Your task to perform on an android device: add a contact in the contacts app Image 0: 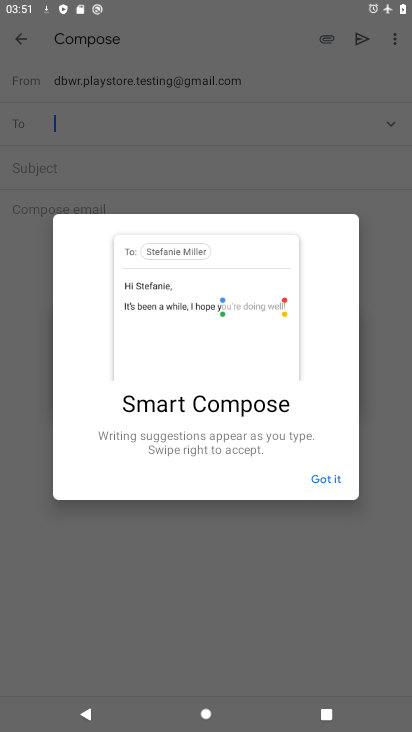
Step 0: press home button
Your task to perform on an android device: add a contact in the contacts app Image 1: 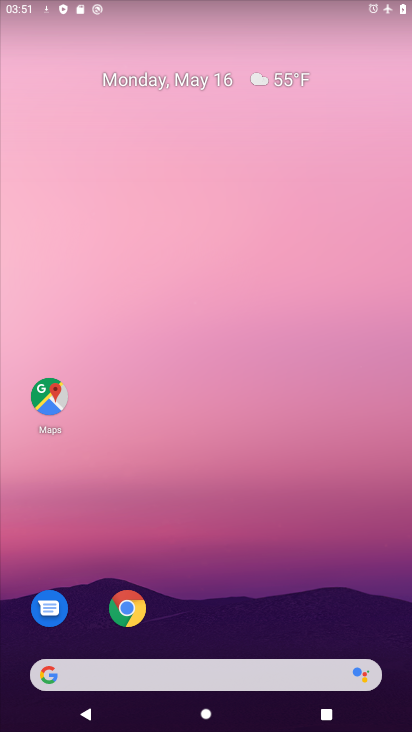
Step 1: drag from (205, 627) to (207, 227)
Your task to perform on an android device: add a contact in the contacts app Image 2: 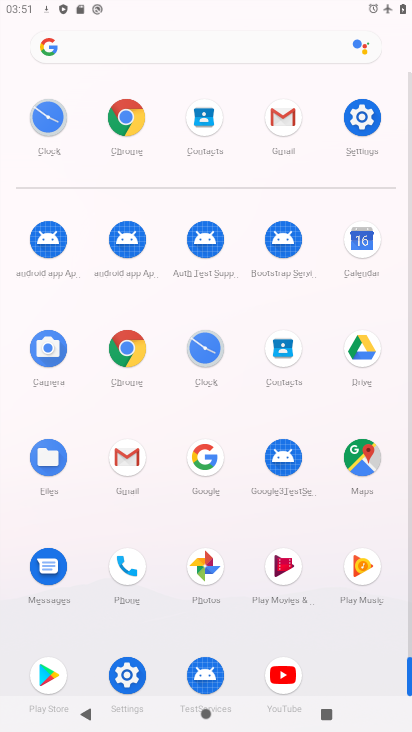
Step 2: click (283, 353)
Your task to perform on an android device: add a contact in the contacts app Image 3: 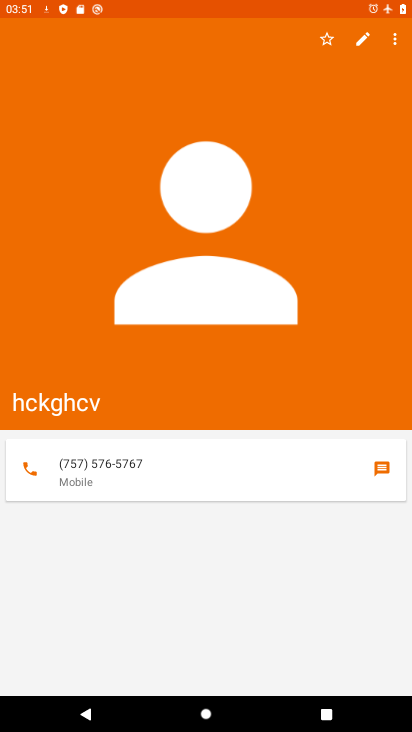
Step 3: press back button
Your task to perform on an android device: add a contact in the contacts app Image 4: 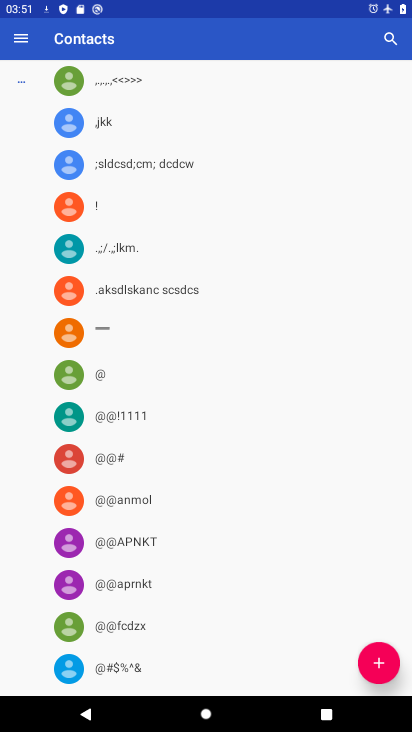
Step 4: click (384, 665)
Your task to perform on an android device: add a contact in the contacts app Image 5: 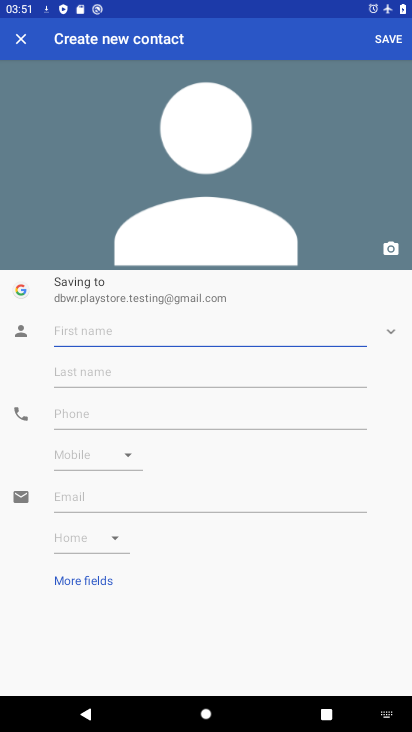
Step 5: click (147, 326)
Your task to perform on an android device: add a contact in the contacts app Image 6: 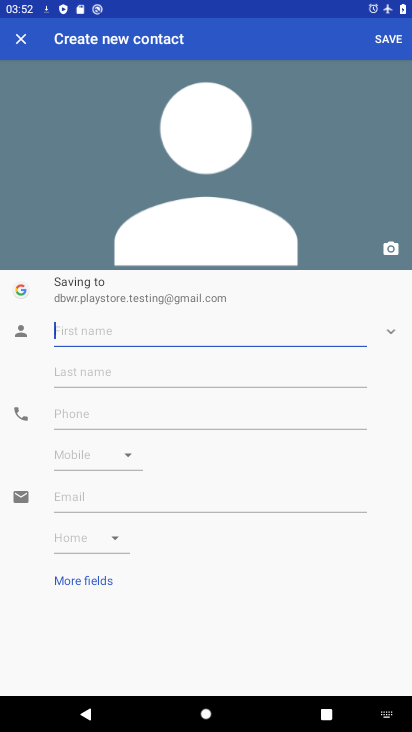
Step 6: type "jjjbjgj"
Your task to perform on an android device: add a contact in the contacts app Image 7: 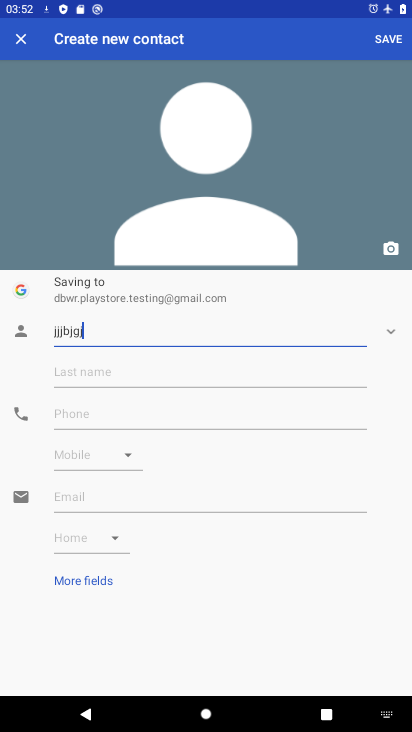
Step 7: click (236, 420)
Your task to perform on an android device: add a contact in the contacts app Image 8: 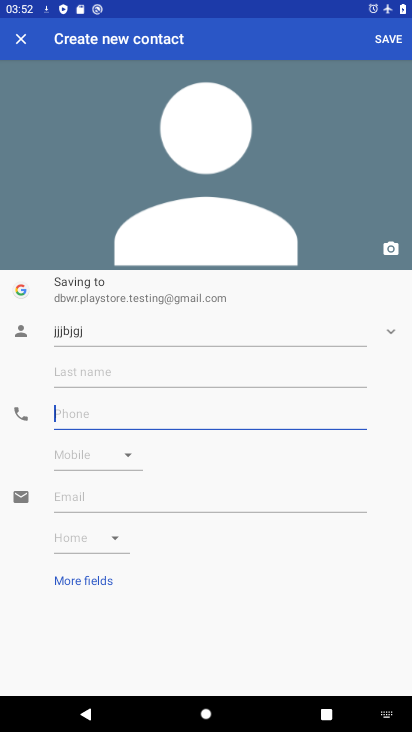
Step 8: type "76567446746"
Your task to perform on an android device: add a contact in the contacts app Image 9: 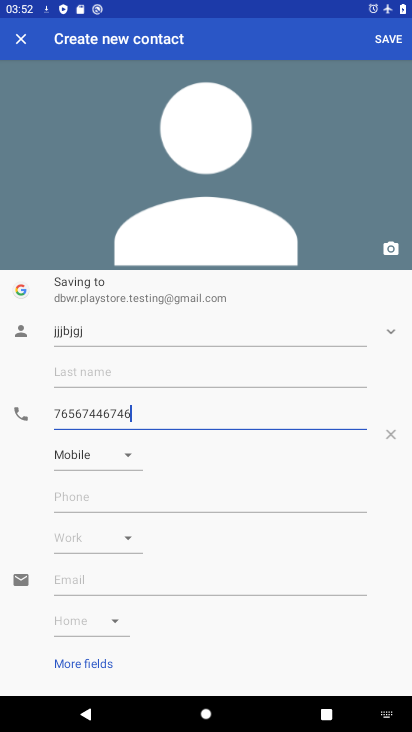
Step 9: click (384, 45)
Your task to perform on an android device: add a contact in the contacts app Image 10: 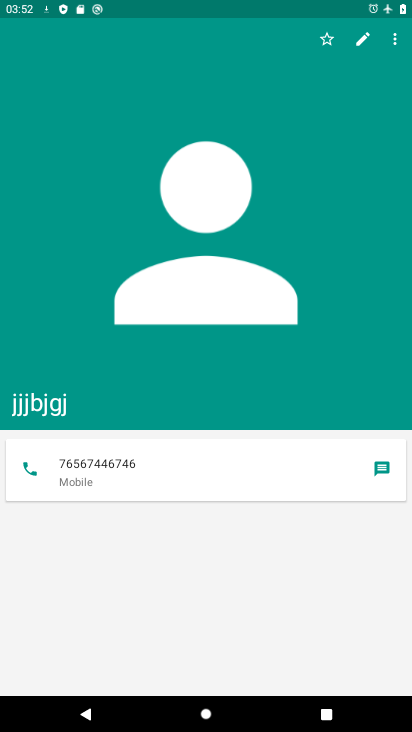
Step 10: task complete